Your task to perform on an android device: check google app version Image 0: 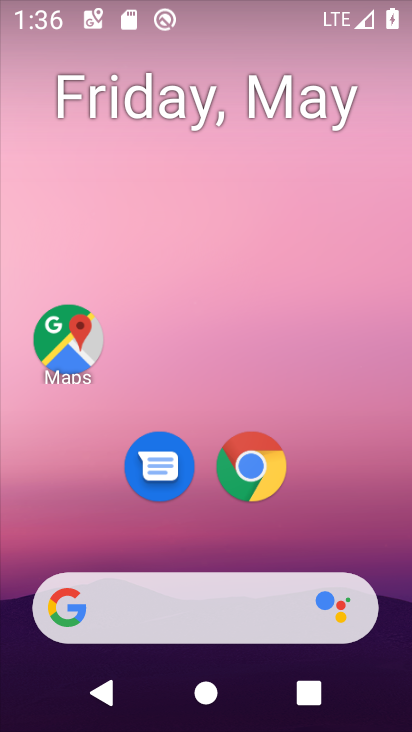
Step 0: drag from (380, 430) to (228, 0)
Your task to perform on an android device: check google app version Image 1: 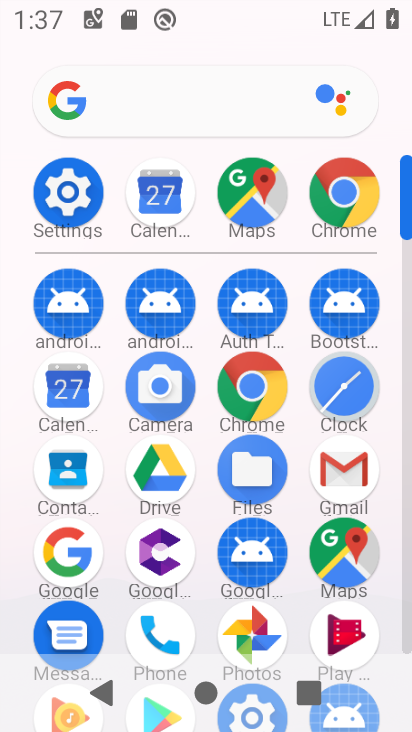
Step 1: click (78, 189)
Your task to perform on an android device: check google app version Image 2: 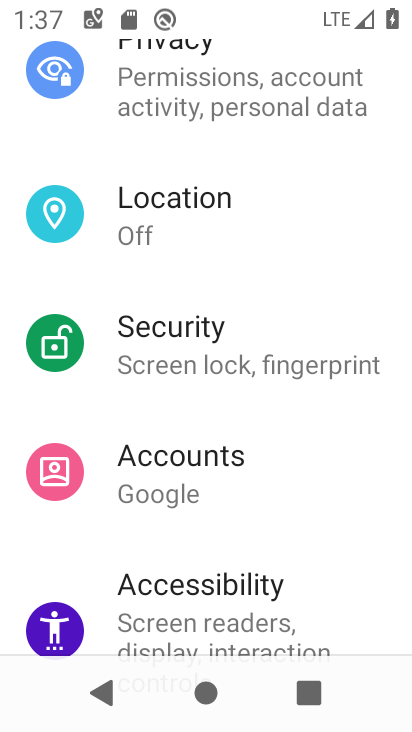
Step 2: drag from (186, 641) to (238, 135)
Your task to perform on an android device: check google app version Image 3: 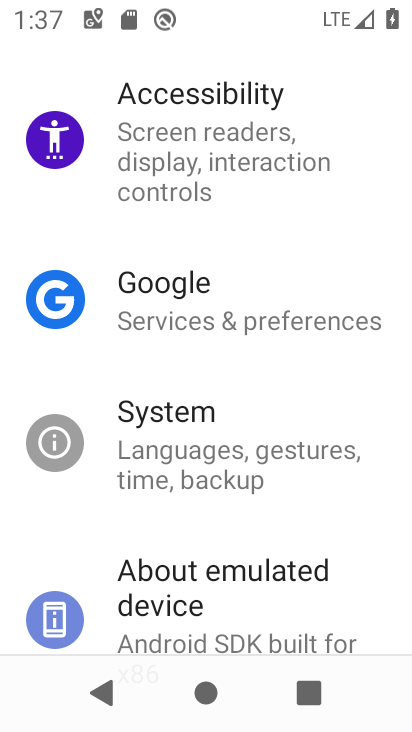
Step 3: drag from (205, 576) to (250, 183)
Your task to perform on an android device: check google app version Image 4: 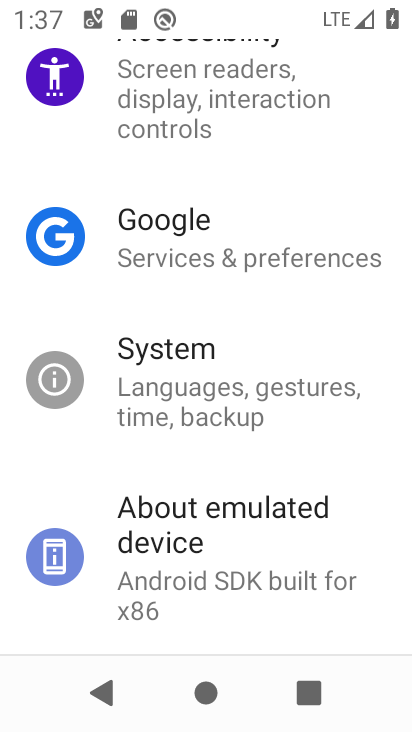
Step 4: drag from (203, 568) to (268, 149)
Your task to perform on an android device: check google app version Image 5: 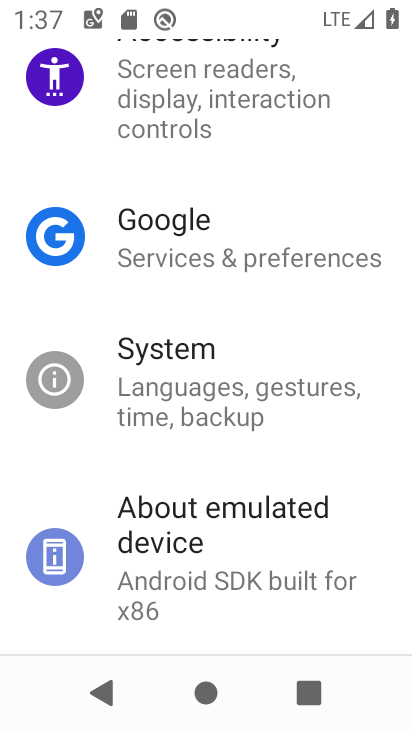
Step 5: click (200, 590)
Your task to perform on an android device: check google app version Image 6: 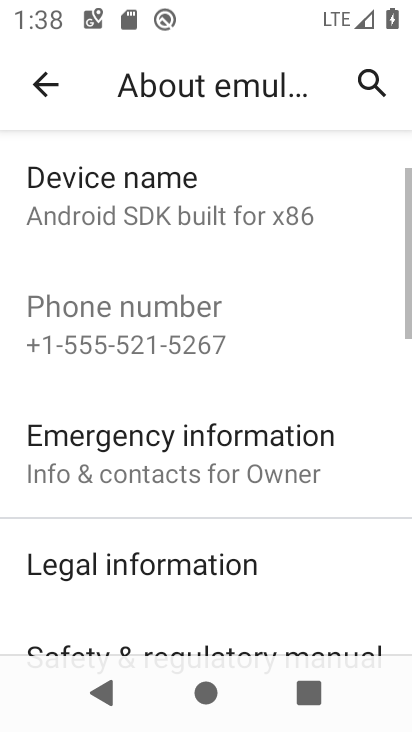
Step 6: drag from (184, 550) to (252, 110)
Your task to perform on an android device: check google app version Image 7: 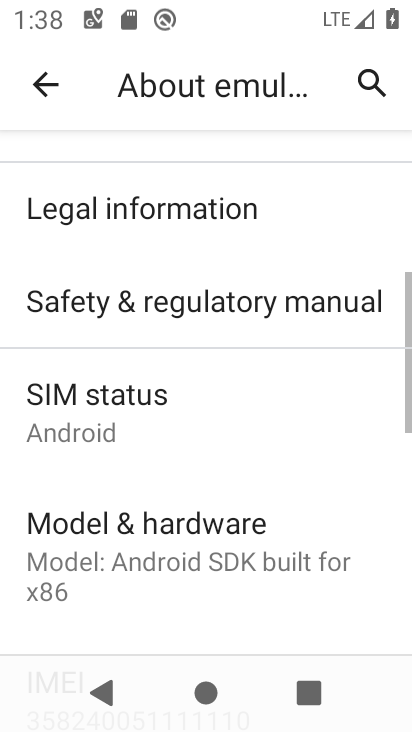
Step 7: drag from (167, 540) to (254, 95)
Your task to perform on an android device: check google app version Image 8: 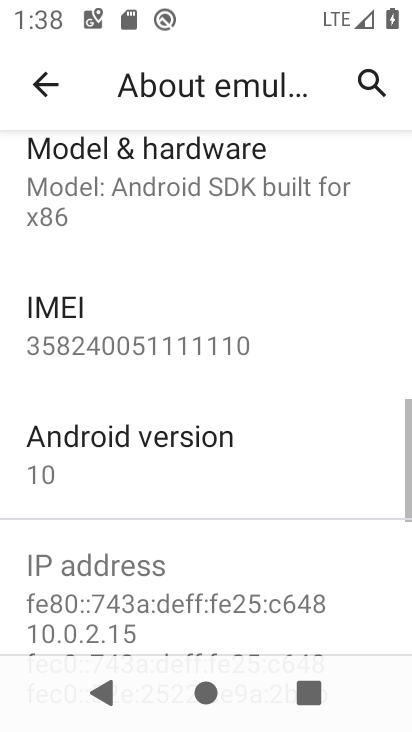
Step 8: click (89, 456)
Your task to perform on an android device: check google app version Image 9: 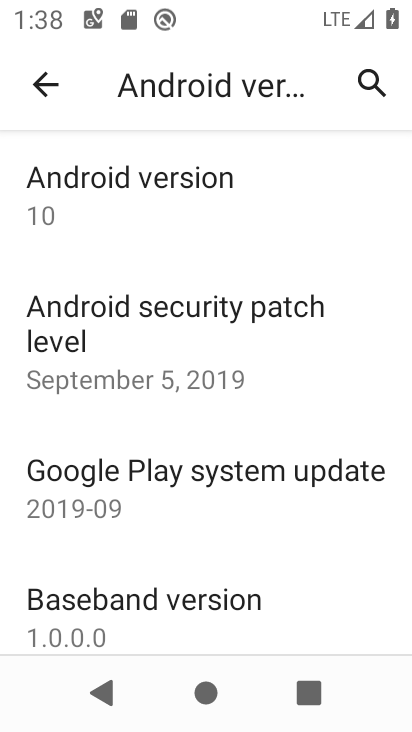
Step 9: click (125, 209)
Your task to perform on an android device: check google app version Image 10: 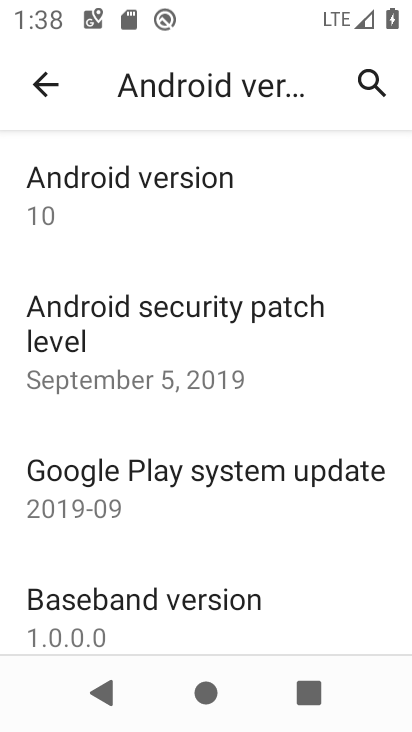
Step 10: task complete